Your task to perform on an android device: toggle wifi Image 0: 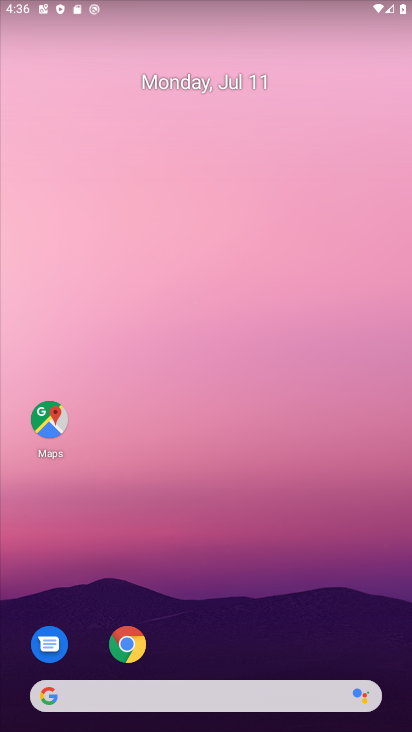
Step 0: press home button
Your task to perform on an android device: toggle wifi Image 1: 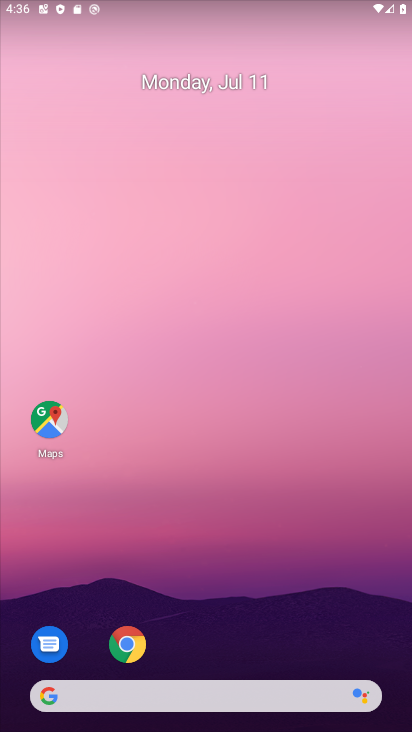
Step 1: drag from (261, 654) to (303, 12)
Your task to perform on an android device: toggle wifi Image 2: 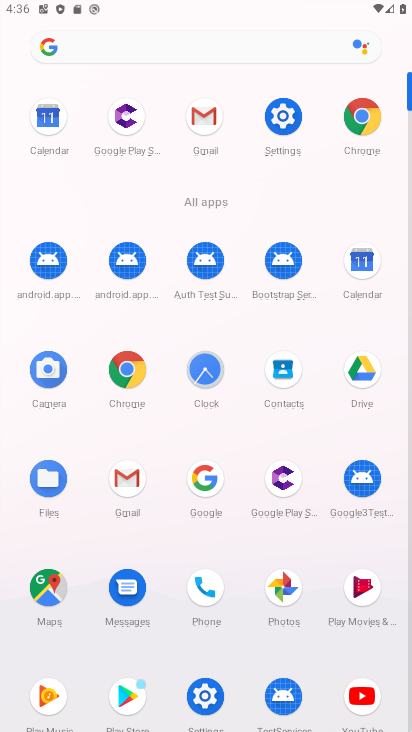
Step 2: drag from (397, 0) to (278, 275)
Your task to perform on an android device: toggle wifi Image 3: 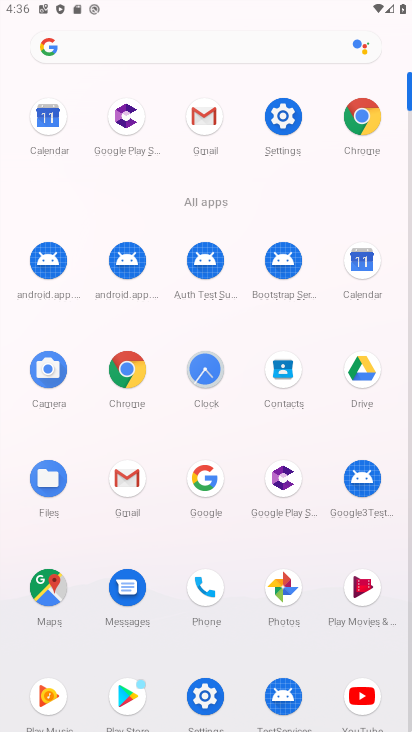
Step 3: drag from (395, 6) to (283, 318)
Your task to perform on an android device: toggle wifi Image 4: 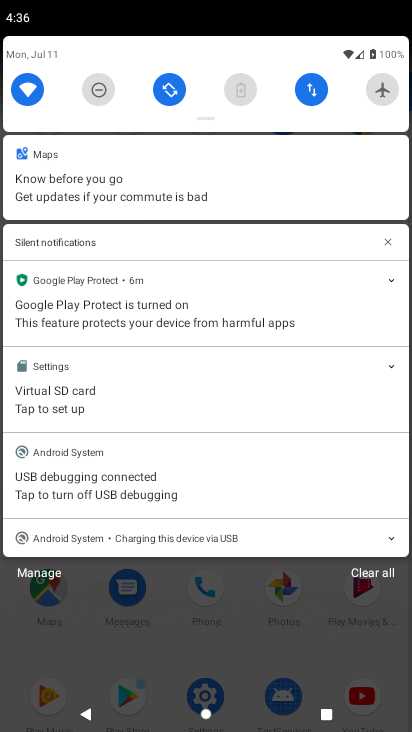
Step 4: click (27, 86)
Your task to perform on an android device: toggle wifi Image 5: 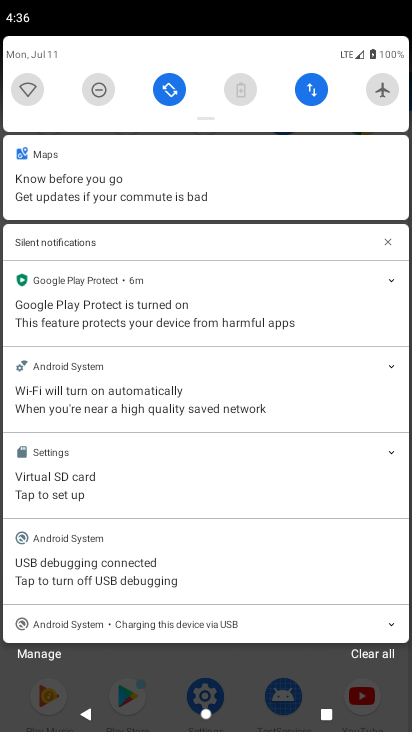
Step 5: task complete